Your task to perform on an android device: set the stopwatch Image 0: 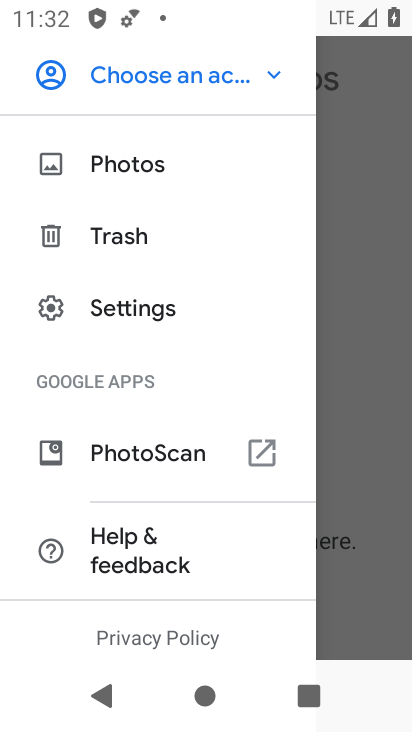
Step 0: press back button
Your task to perform on an android device: set the stopwatch Image 1: 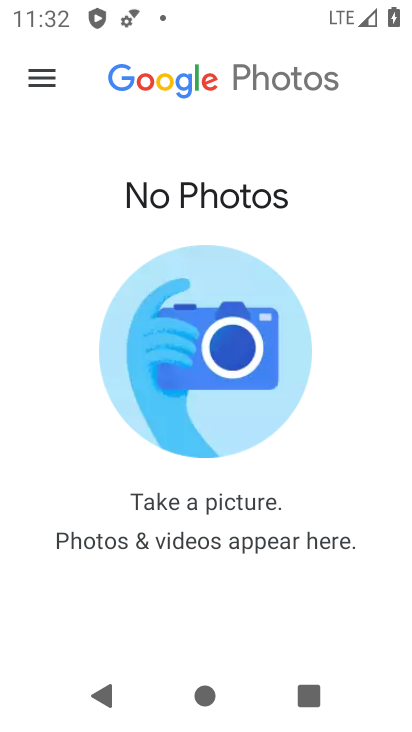
Step 1: press back button
Your task to perform on an android device: set the stopwatch Image 2: 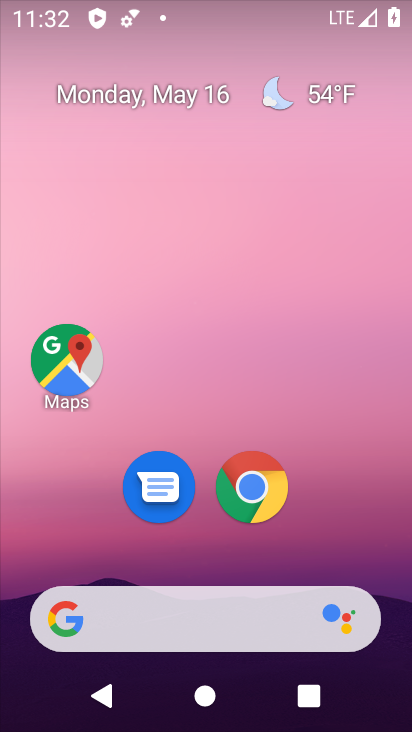
Step 2: drag from (192, 573) to (260, 42)
Your task to perform on an android device: set the stopwatch Image 3: 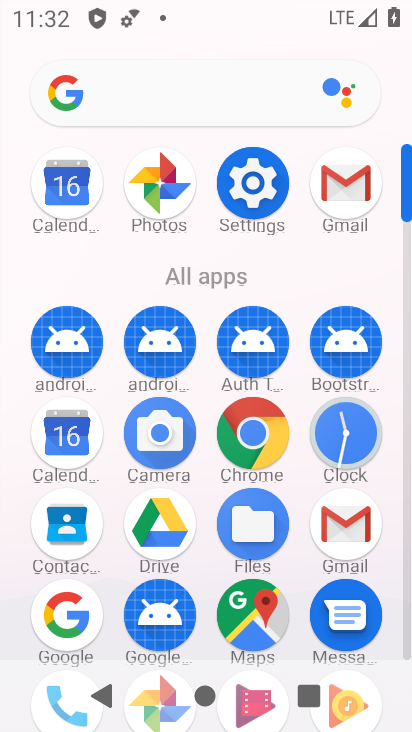
Step 3: click (340, 439)
Your task to perform on an android device: set the stopwatch Image 4: 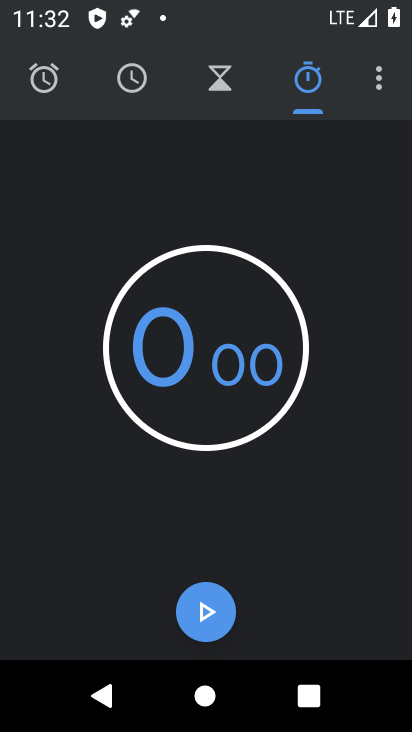
Step 4: click (231, 387)
Your task to perform on an android device: set the stopwatch Image 5: 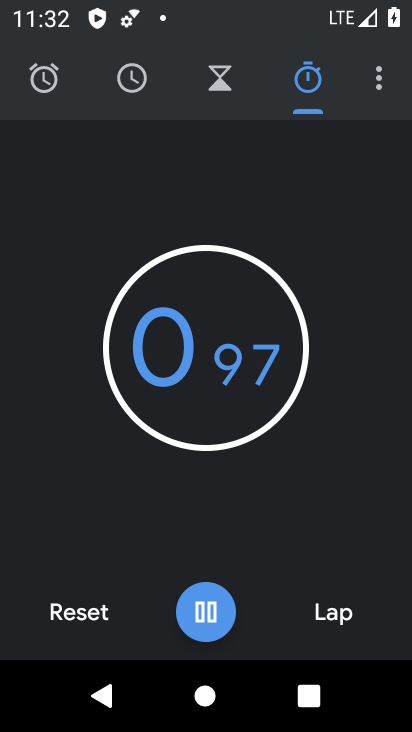
Step 5: click (221, 383)
Your task to perform on an android device: set the stopwatch Image 6: 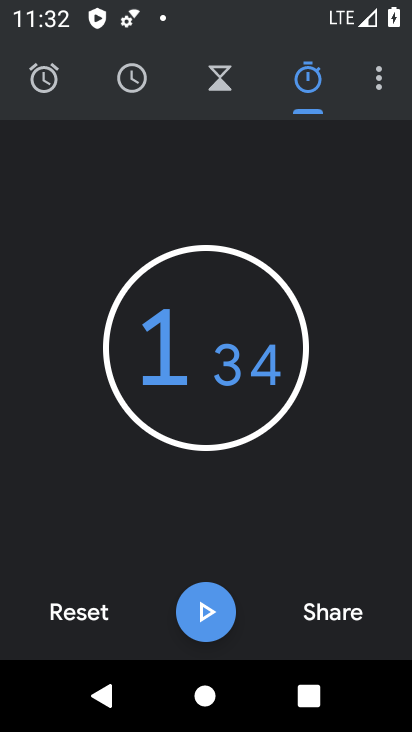
Step 6: task complete